Your task to perform on an android device: Open my contact list Image 0: 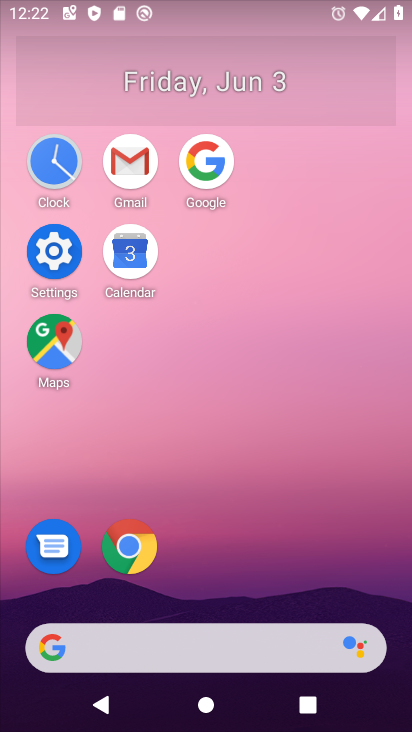
Step 0: drag from (278, 564) to (310, 142)
Your task to perform on an android device: Open my contact list Image 1: 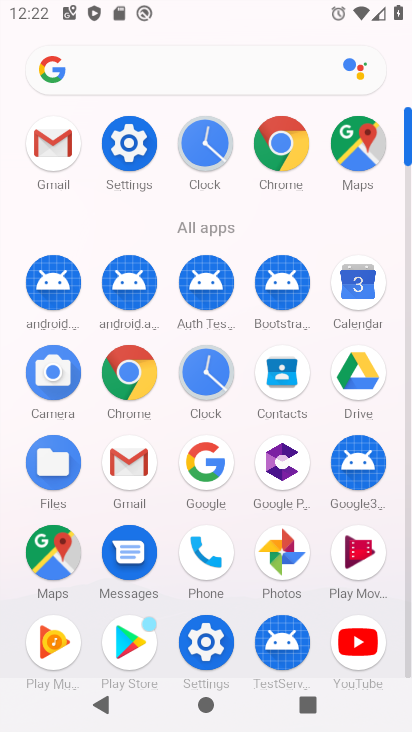
Step 1: drag from (274, 383) to (212, 270)
Your task to perform on an android device: Open my contact list Image 2: 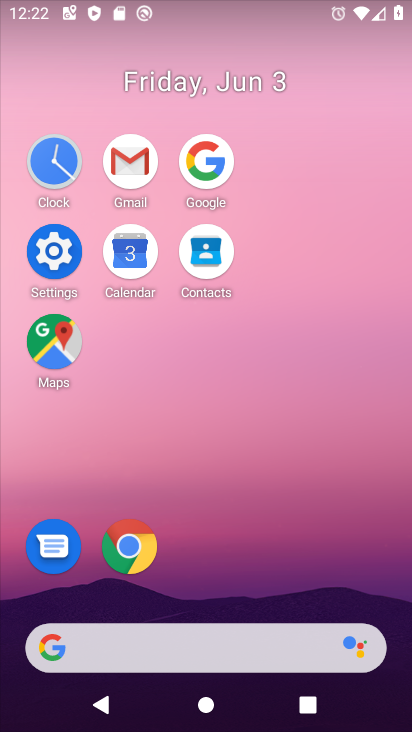
Step 2: click (212, 260)
Your task to perform on an android device: Open my contact list Image 3: 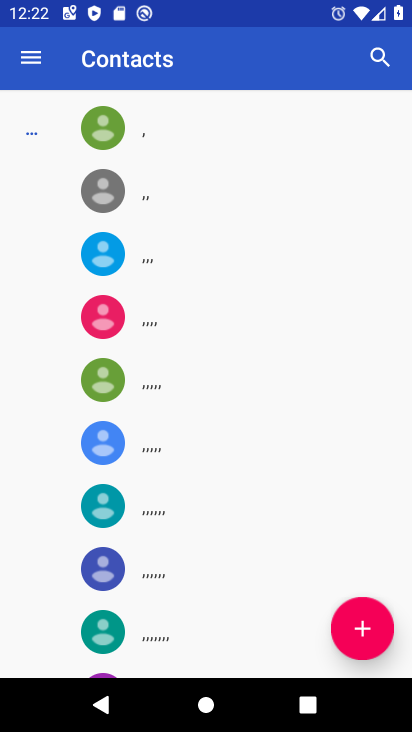
Step 3: task complete